Your task to perform on an android device: turn on sleep mode Image 0: 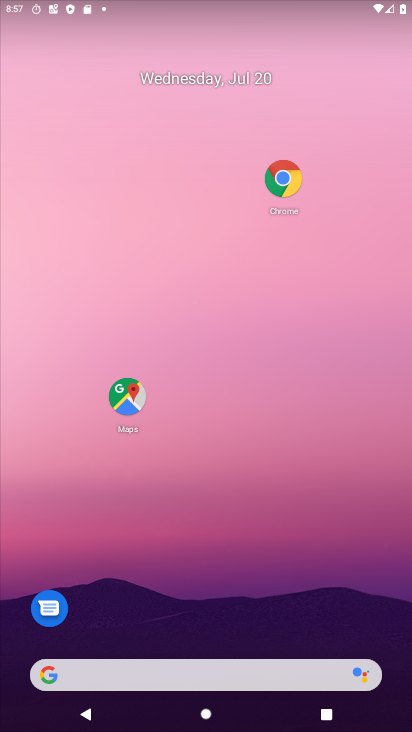
Step 0: drag from (179, 339) to (174, 102)
Your task to perform on an android device: turn on sleep mode Image 1: 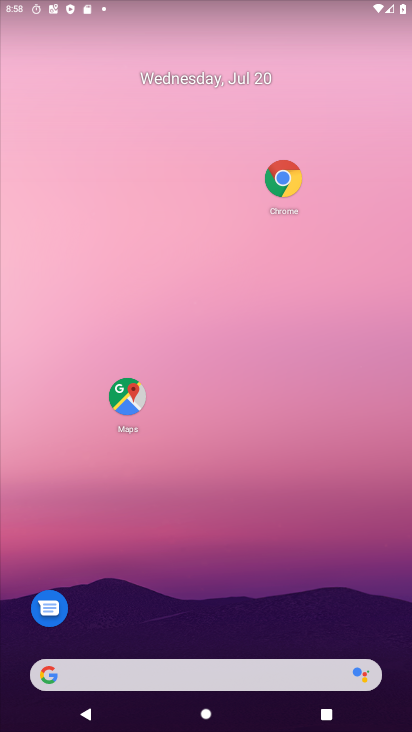
Step 1: drag from (146, 167) to (138, 42)
Your task to perform on an android device: turn on sleep mode Image 2: 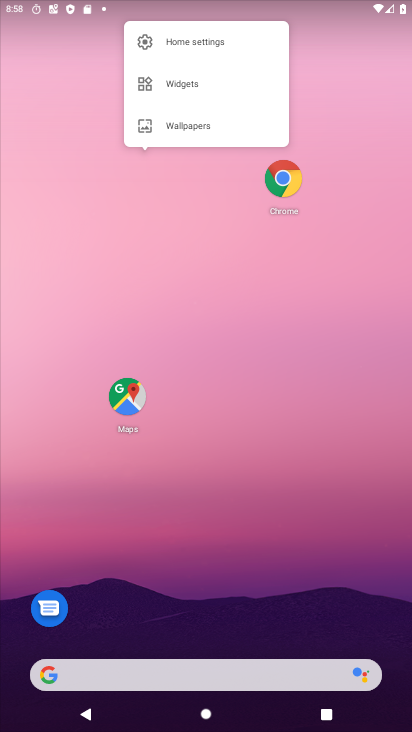
Step 2: click (197, 445)
Your task to perform on an android device: turn on sleep mode Image 3: 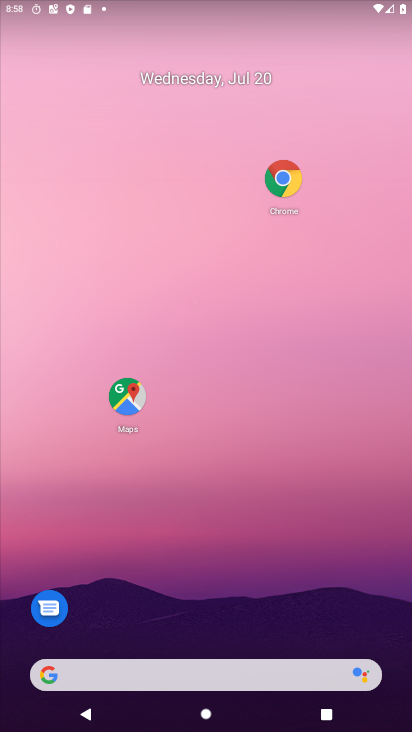
Step 3: drag from (181, 626) to (103, 112)
Your task to perform on an android device: turn on sleep mode Image 4: 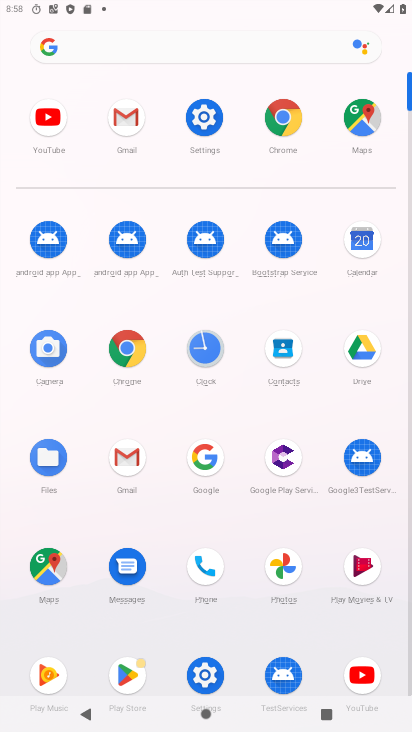
Step 4: click (212, 122)
Your task to perform on an android device: turn on sleep mode Image 5: 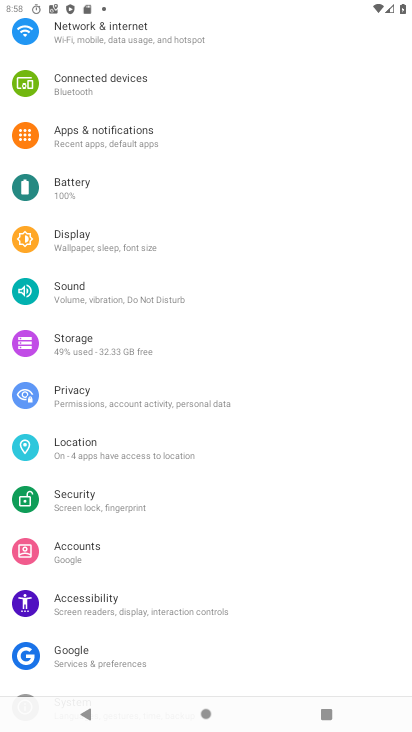
Step 5: drag from (242, 186) to (314, 669)
Your task to perform on an android device: turn on sleep mode Image 6: 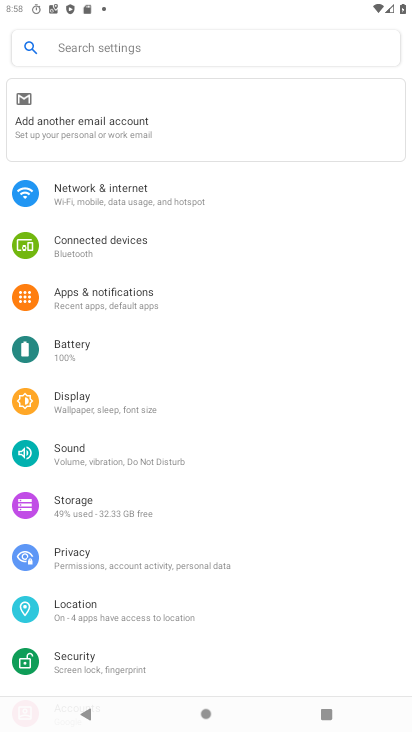
Step 6: click (147, 53)
Your task to perform on an android device: turn on sleep mode Image 7: 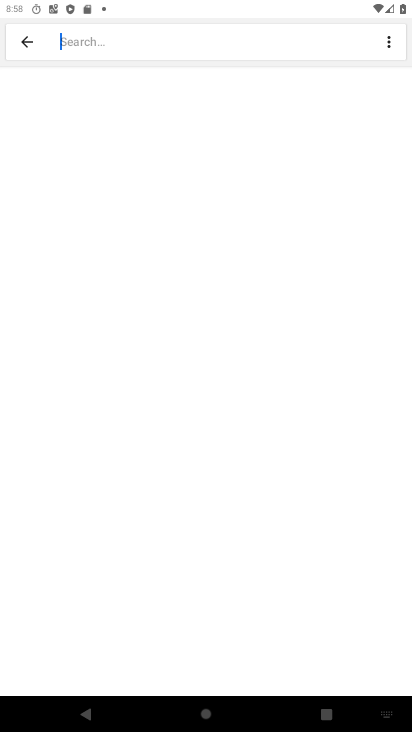
Step 7: type "sleep mode"
Your task to perform on an android device: turn on sleep mode Image 8: 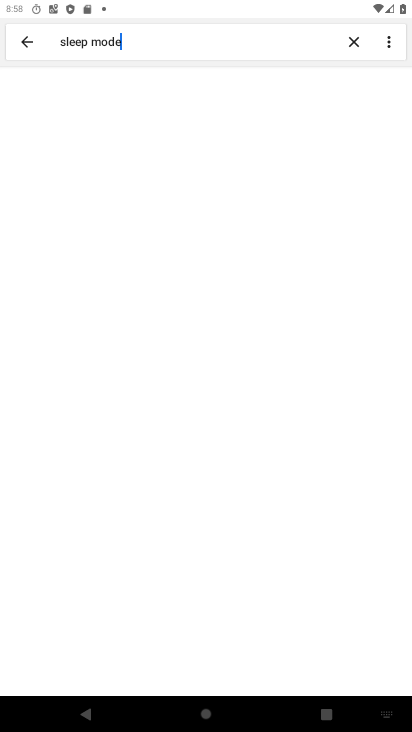
Step 8: type ""
Your task to perform on an android device: turn on sleep mode Image 9: 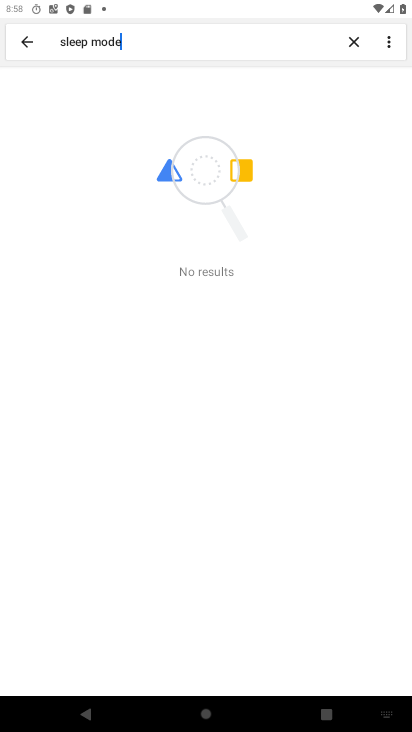
Step 9: task complete